Your task to perform on an android device: Open internet settings Image 0: 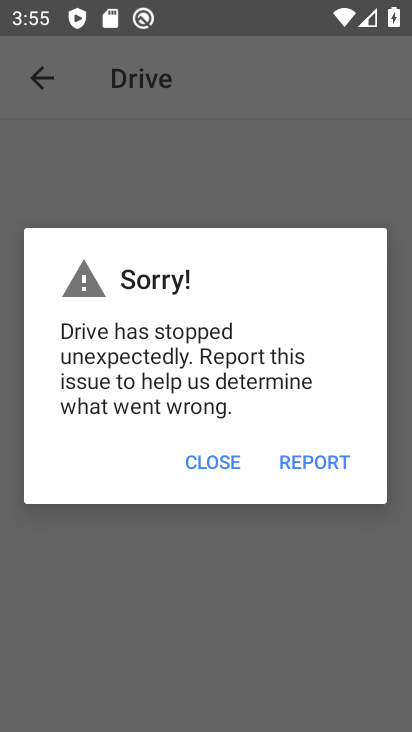
Step 0: press home button
Your task to perform on an android device: Open internet settings Image 1: 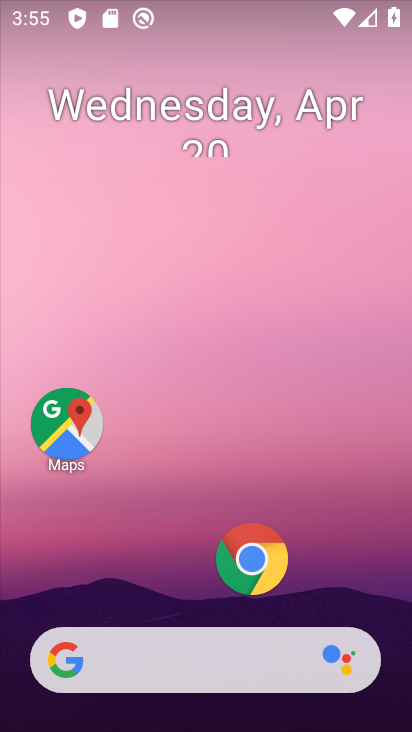
Step 1: drag from (107, 584) to (160, 253)
Your task to perform on an android device: Open internet settings Image 2: 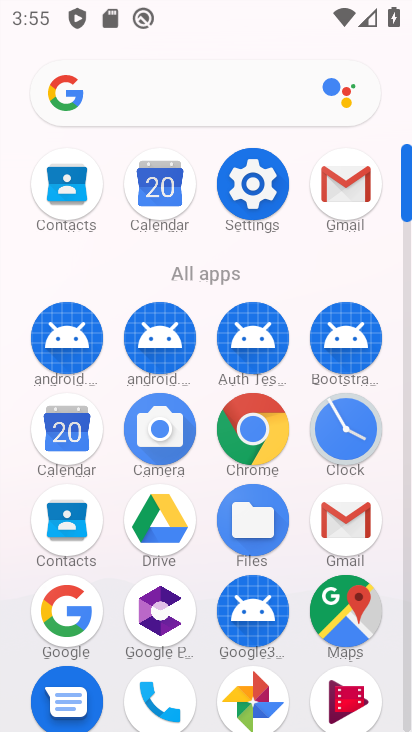
Step 2: click (255, 184)
Your task to perform on an android device: Open internet settings Image 3: 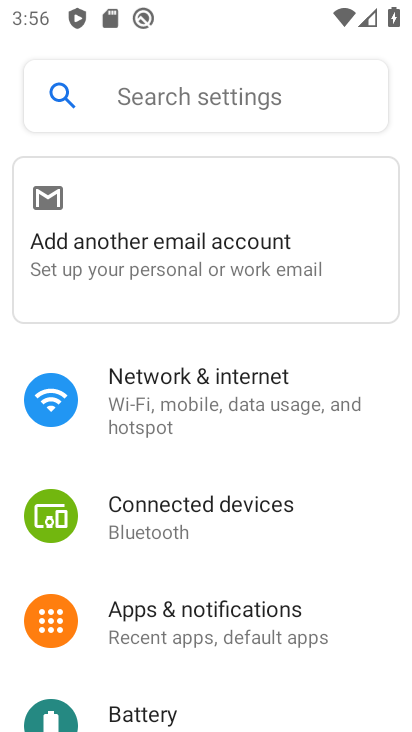
Step 3: click (218, 390)
Your task to perform on an android device: Open internet settings Image 4: 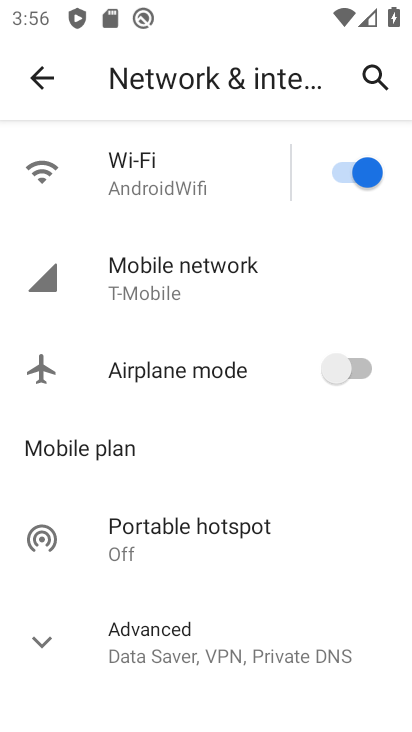
Step 4: click (180, 275)
Your task to perform on an android device: Open internet settings Image 5: 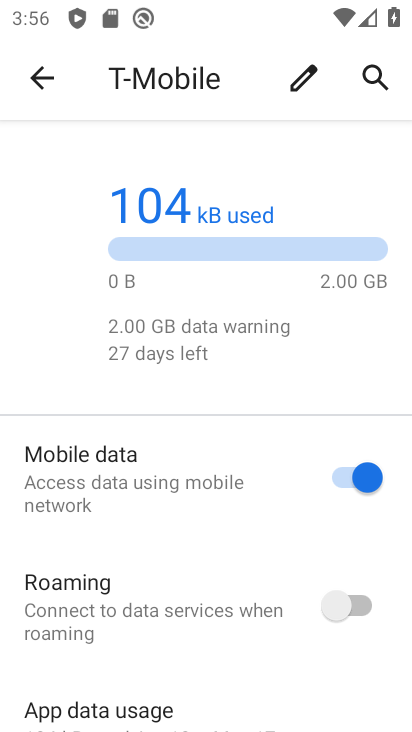
Step 5: task complete